Your task to perform on an android device: turn smart compose on in the gmail app Image 0: 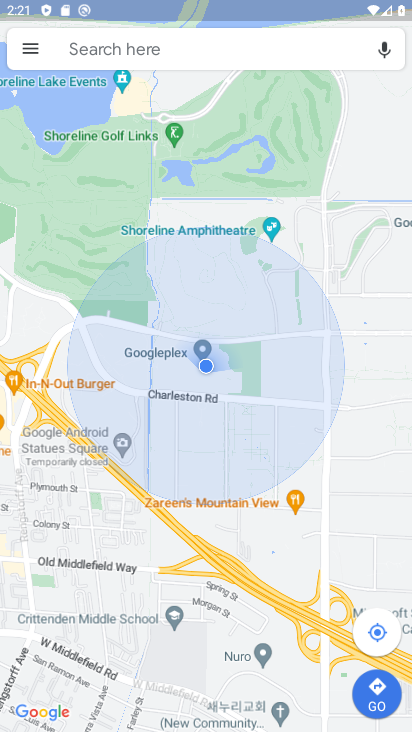
Step 0: press home button
Your task to perform on an android device: turn smart compose on in the gmail app Image 1: 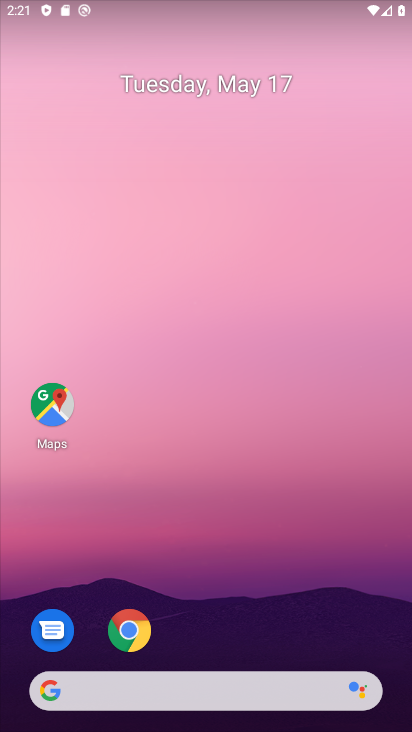
Step 1: drag from (195, 668) to (206, 329)
Your task to perform on an android device: turn smart compose on in the gmail app Image 2: 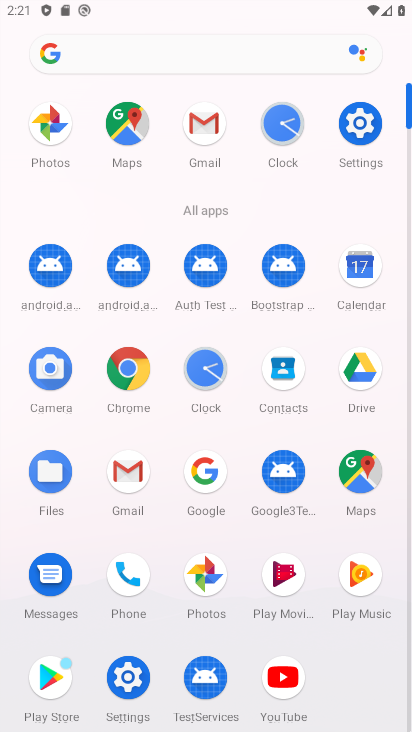
Step 2: click (204, 125)
Your task to perform on an android device: turn smart compose on in the gmail app Image 3: 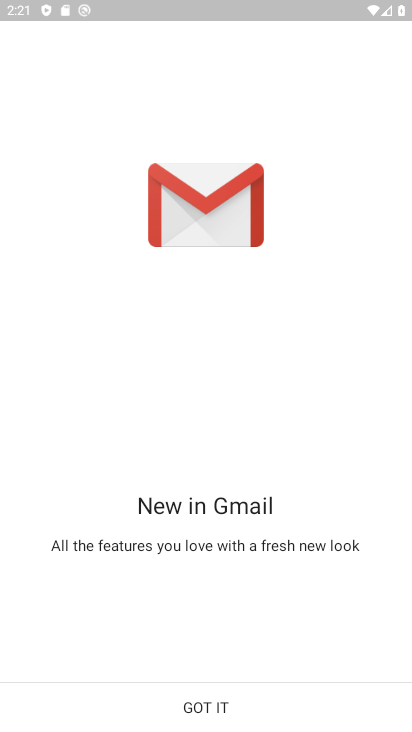
Step 3: click (165, 704)
Your task to perform on an android device: turn smart compose on in the gmail app Image 4: 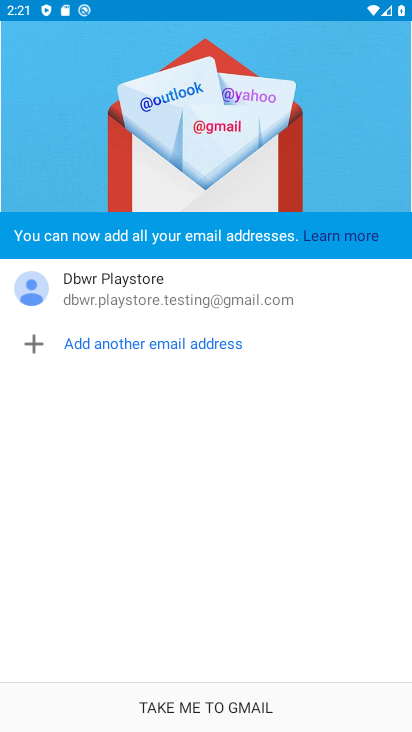
Step 4: click (231, 708)
Your task to perform on an android device: turn smart compose on in the gmail app Image 5: 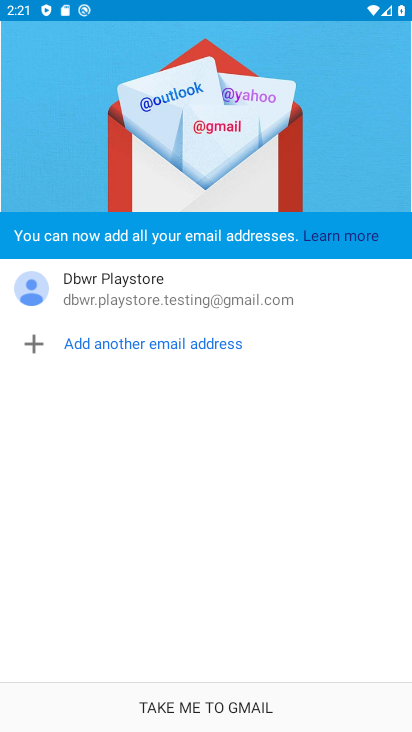
Step 5: click (231, 708)
Your task to perform on an android device: turn smart compose on in the gmail app Image 6: 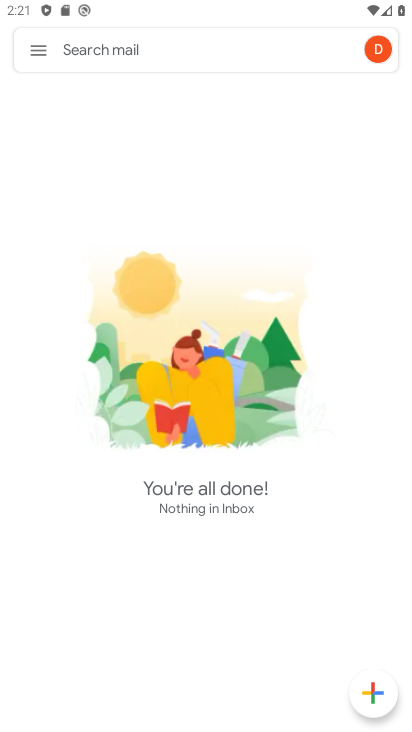
Step 6: click (34, 45)
Your task to perform on an android device: turn smart compose on in the gmail app Image 7: 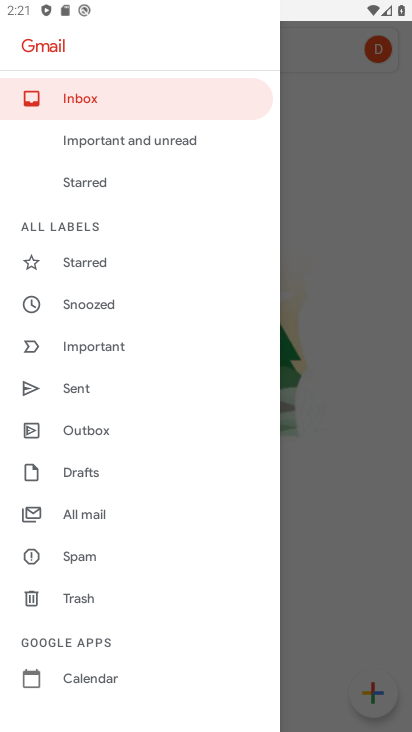
Step 7: drag from (112, 685) to (156, 277)
Your task to perform on an android device: turn smart compose on in the gmail app Image 8: 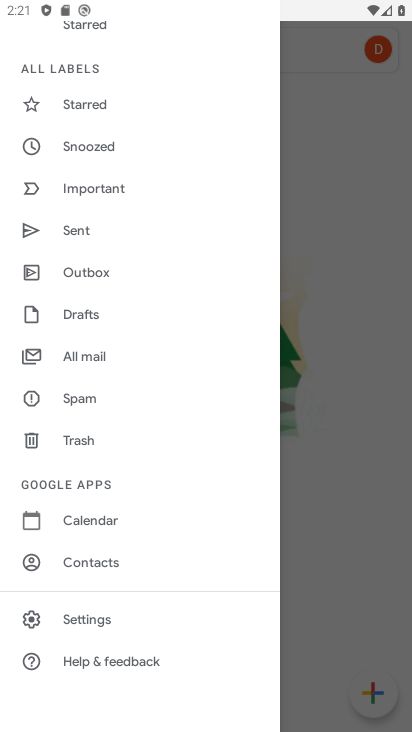
Step 8: click (85, 622)
Your task to perform on an android device: turn smart compose on in the gmail app Image 9: 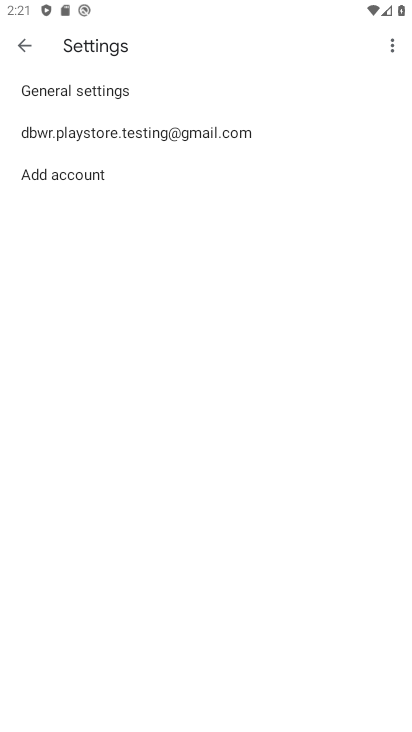
Step 9: click (157, 133)
Your task to perform on an android device: turn smart compose on in the gmail app Image 10: 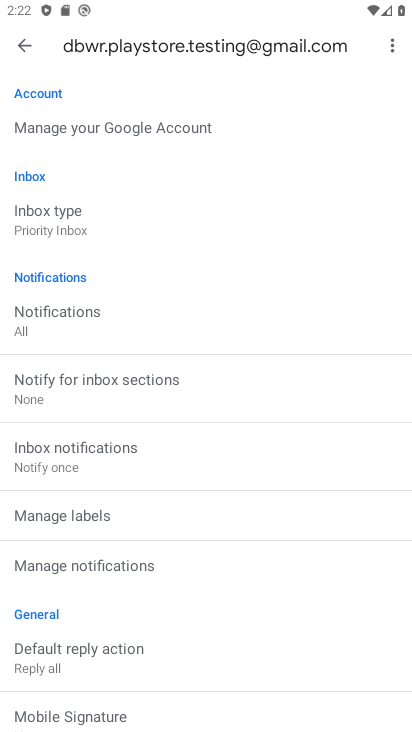
Step 10: click (120, 263)
Your task to perform on an android device: turn smart compose on in the gmail app Image 11: 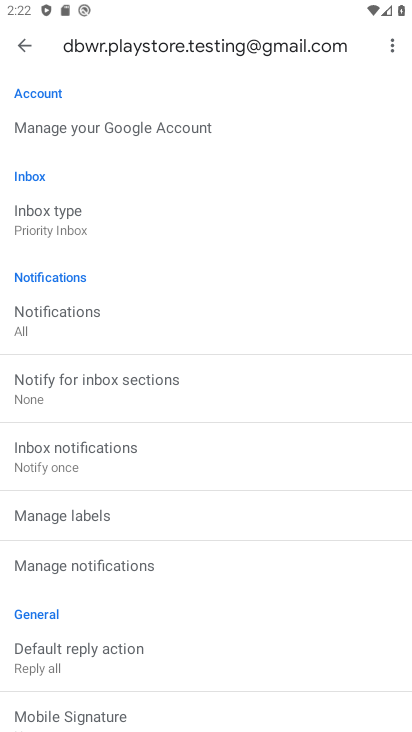
Step 11: drag from (167, 654) to (188, 443)
Your task to perform on an android device: turn smart compose on in the gmail app Image 12: 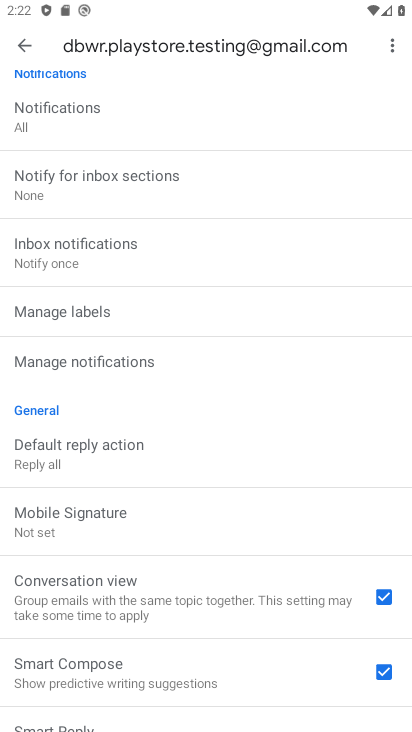
Step 12: click (102, 147)
Your task to perform on an android device: turn smart compose on in the gmail app Image 13: 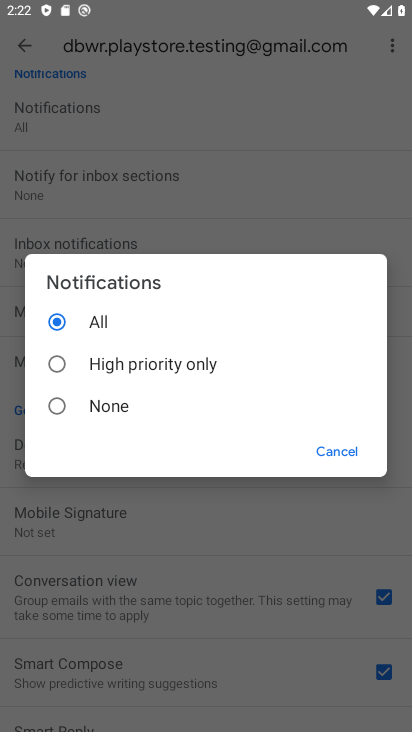
Step 13: click (337, 447)
Your task to perform on an android device: turn smart compose on in the gmail app Image 14: 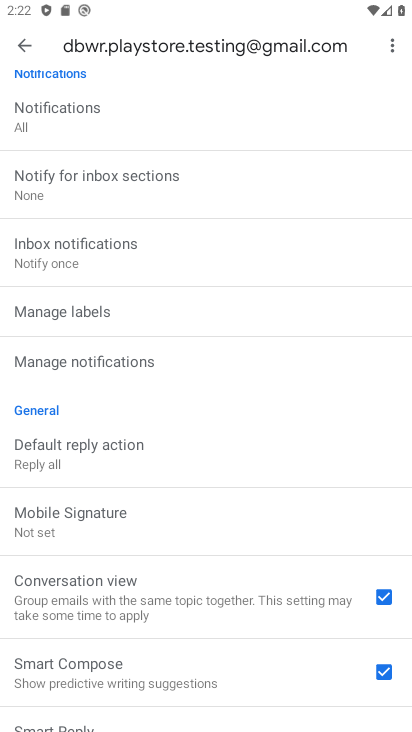
Step 14: task complete